Your task to perform on an android device: set the timer Image 0: 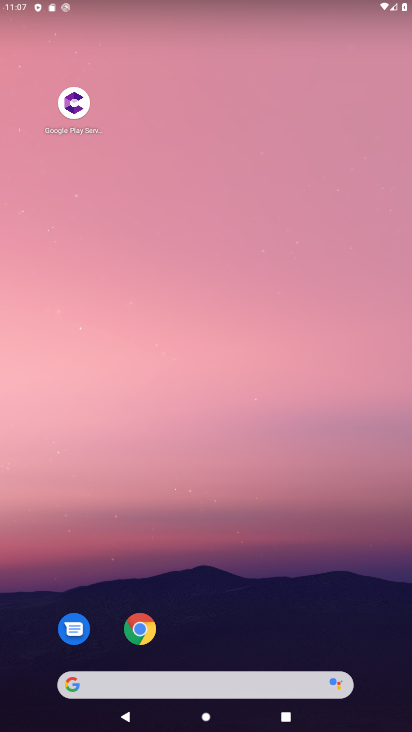
Step 0: drag from (275, 635) to (408, 124)
Your task to perform on an android device: set the timer Image 1: 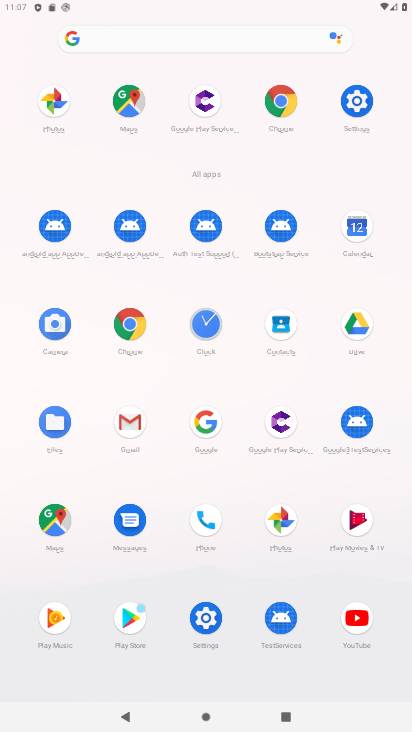
Step 1: click (203, 326)
Your task to perform on an android device: set the timer Image 2: 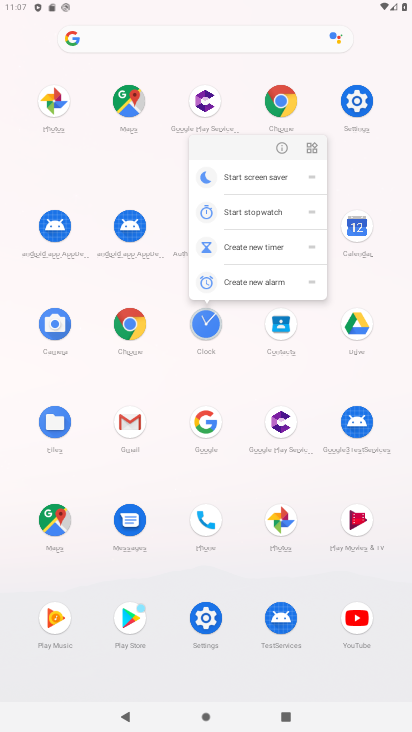
Step 2: click (203, 325)
Your task to perform on an android device: set the timer Image 3: 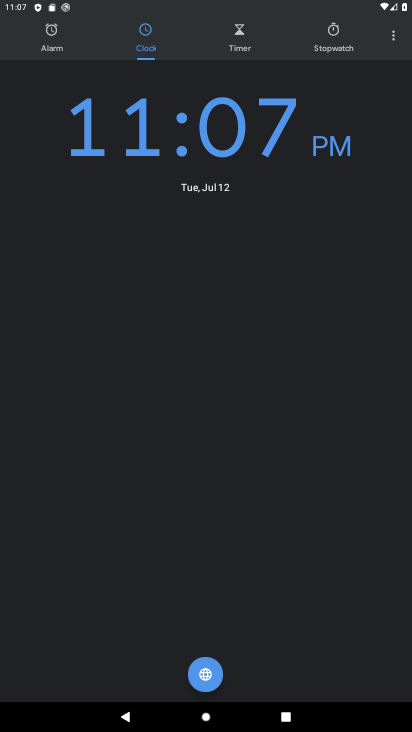
Step 3: click (233, 48)
Your task to perform on an android device: set the timer Image 4: 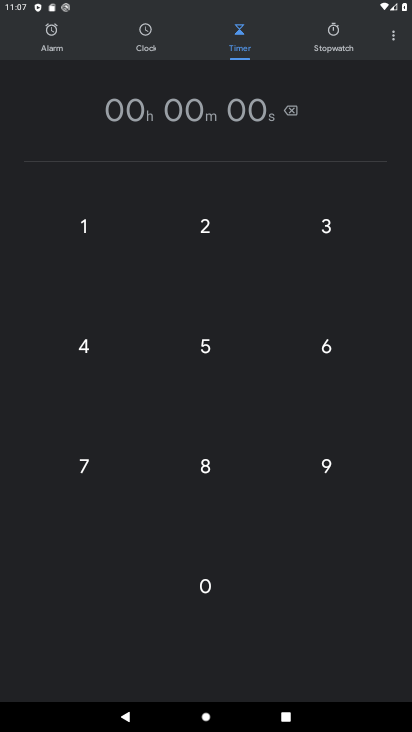
Step 4: click (211, 217)
Your task to perform on an android device: set the timer Image 5: 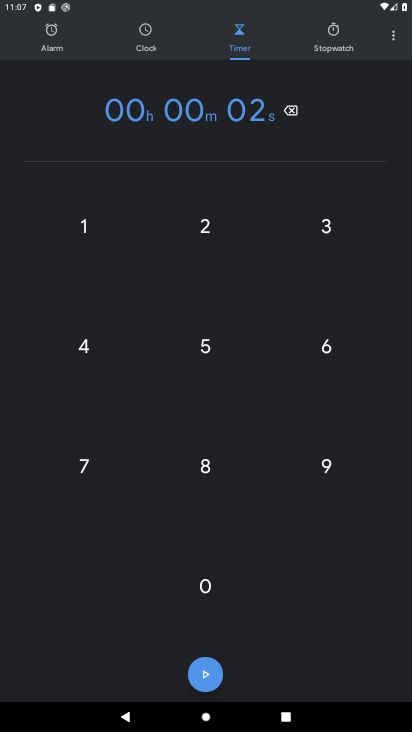
Step 5: click (207, 347)
Your task to perform on an android device: set the timer Image 6: 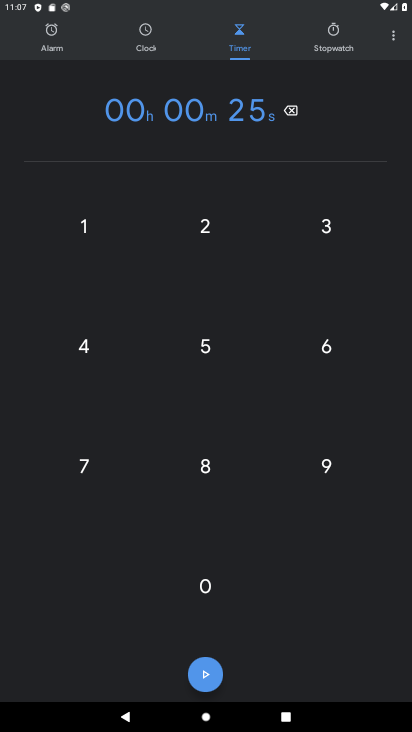
Step 6: click (199, 227)
Your task to perform on an android device: set the timer Image 7: 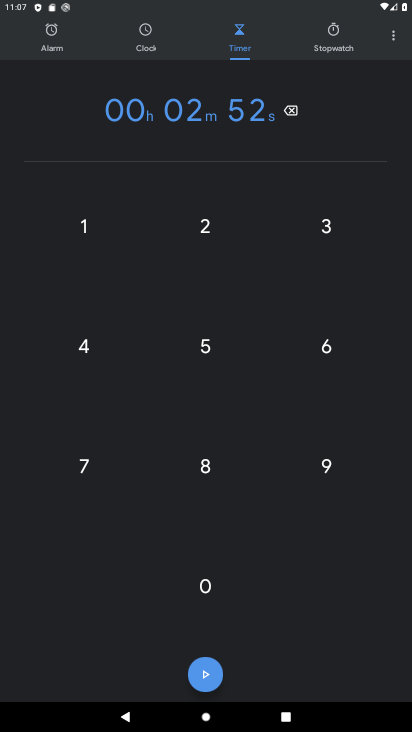
Step 7: click (213, 327)
Your task to perform on an android device: set the timer Image 8: 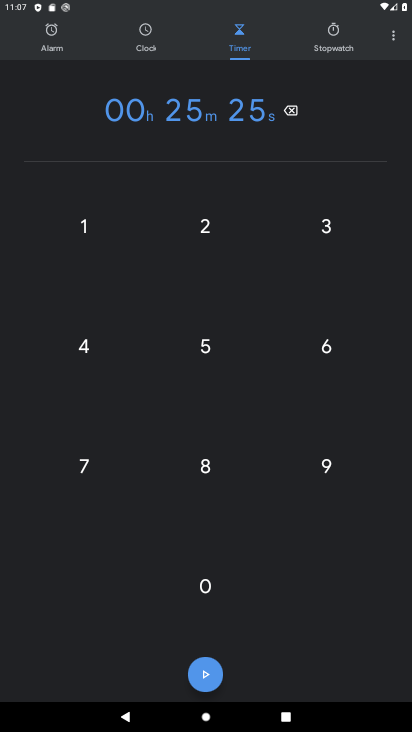
Step 8: click (194, 237)
Your task to perform on an android device: set the timer Image 9: 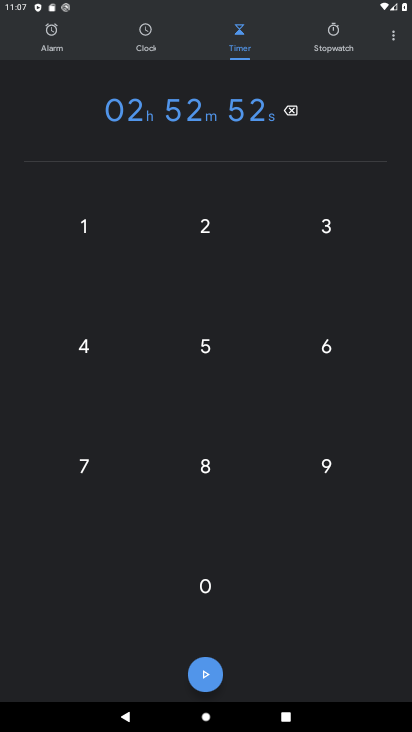
Step 9: click (221, 322)
Your task to perform on an android device: set the timer Image 10: 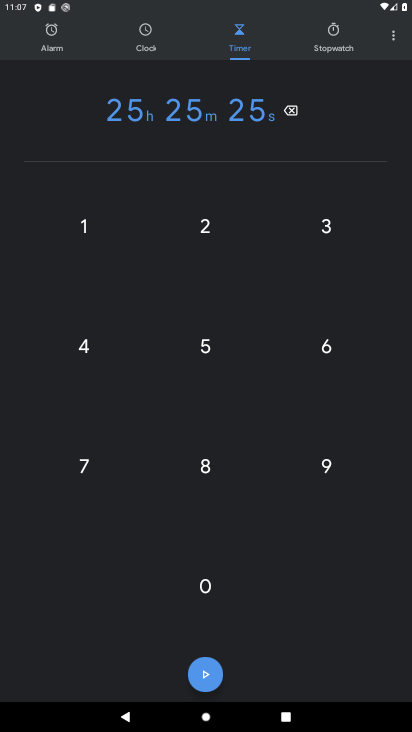
Step 10: click (207, 677)
Your task to perform on an android device: set the timer Image 11: 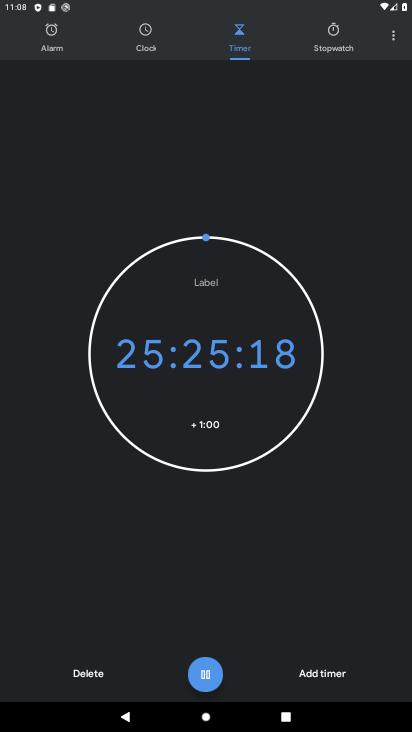
Step 11: task complete